Your task to perform on an android device: turn off sleep mode Image 0: 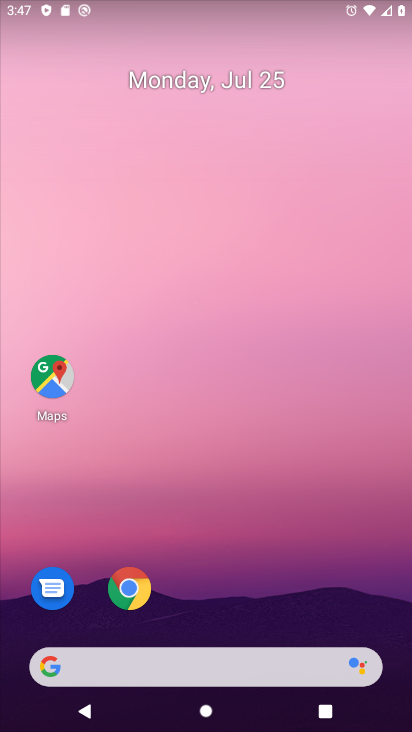
Step 0: drag from (231, 725) to (232, 161)
Your task to perform on an android device: turn off sleep mode Image 1: 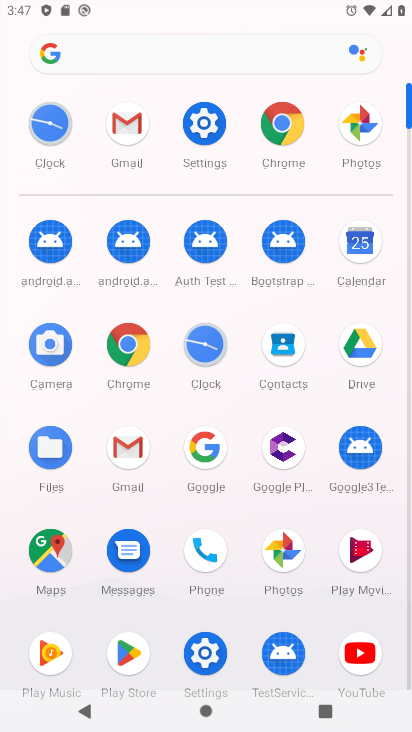
Step 1: click (207, 121)
Your task to perform on an android device: turn off sleep mode Image 2: 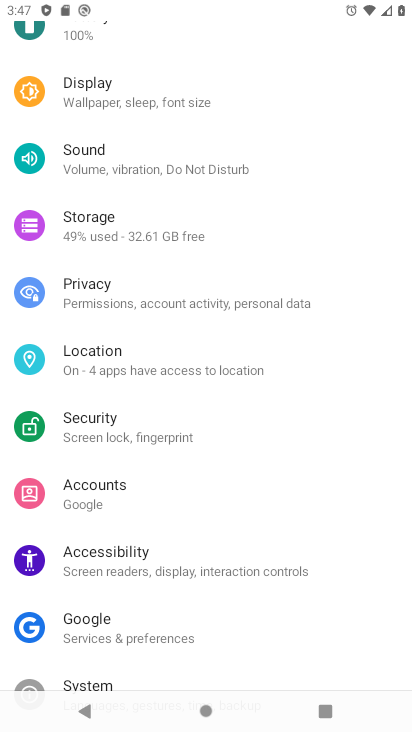
Step 2: drag from (192, 140) to (179, 639)
Your task to perform on an android device: turn off sleep mode Image 3: 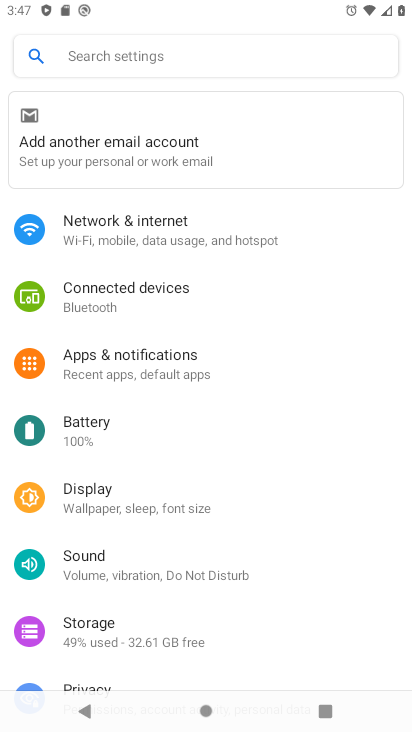
Step 3: click (87, 503)
Your task to perform on an android device: turn off sleep mode Image 4: 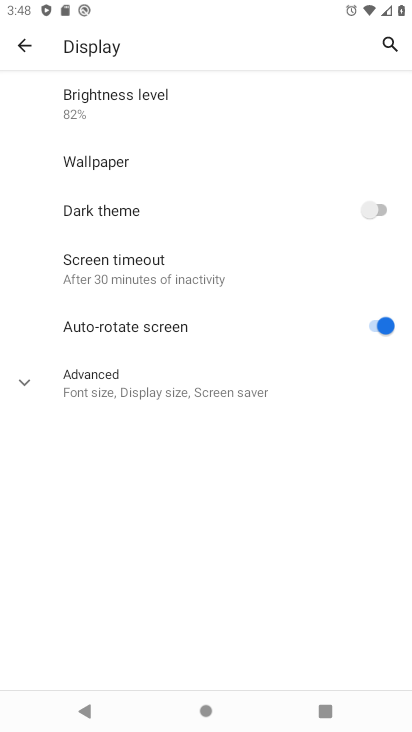
Step 4: task complete